Your task to perform on an android device: toggle sleep mode Image 0: 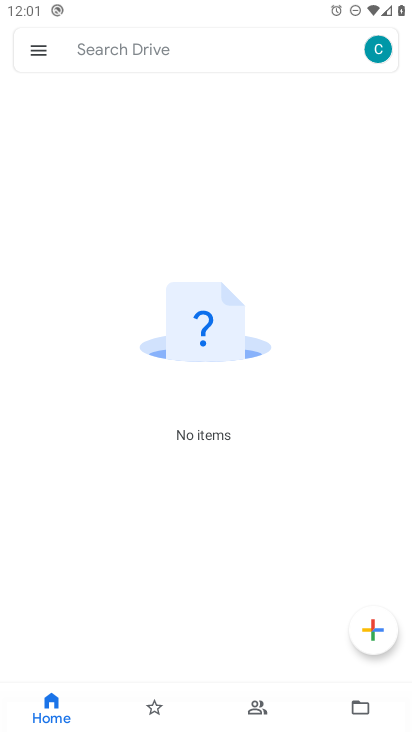
Step 0: press home button
Your task to perform on an android device: toggle sleep mode Image 1: 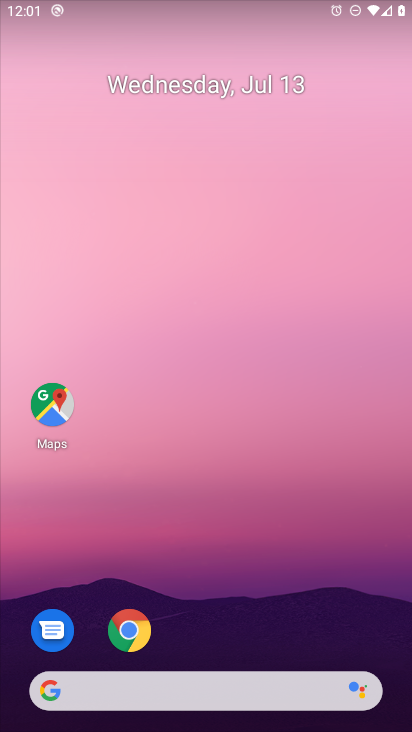
Step 1: drag from (279, 592) to (257, 46)
Your task to perform on an android device: toggle sleep mode Image 2: 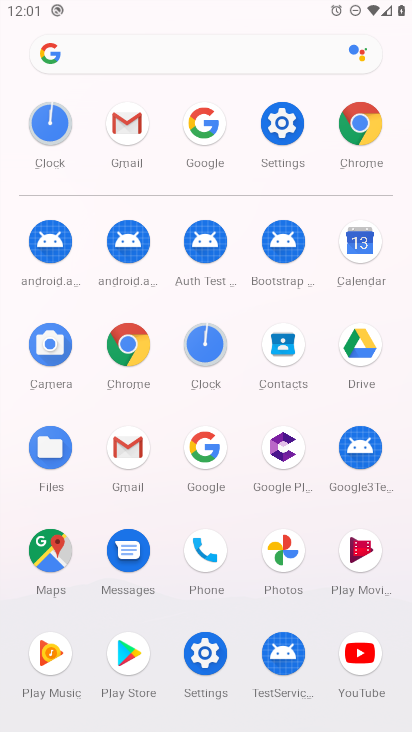
Step 2: click (278, 128)
Your task to perform on an android device: toggle sleep mode Image 3: 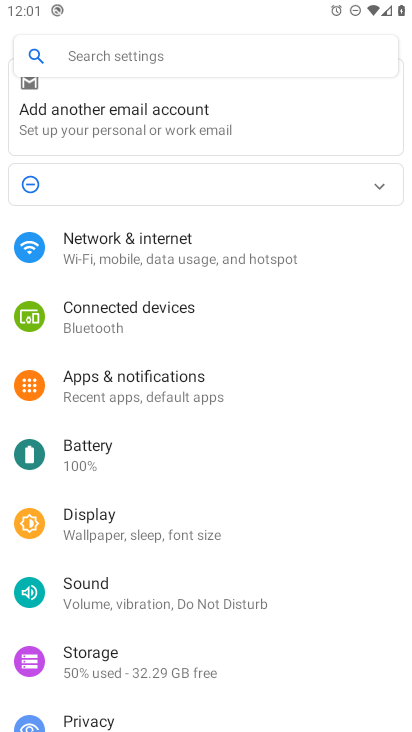
Step 3: click (119, 524)
Your task to perform on an android device: toggle sleep mode Image 4: 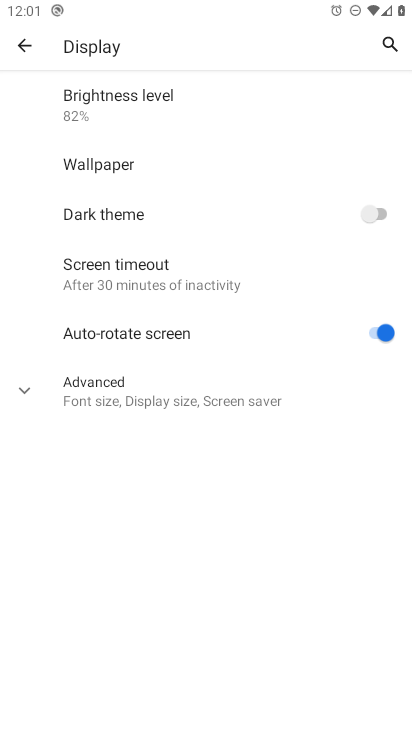
Step 4: click (47, 390)
Your task to perform on an android device: toggle sleep mode Image 5: 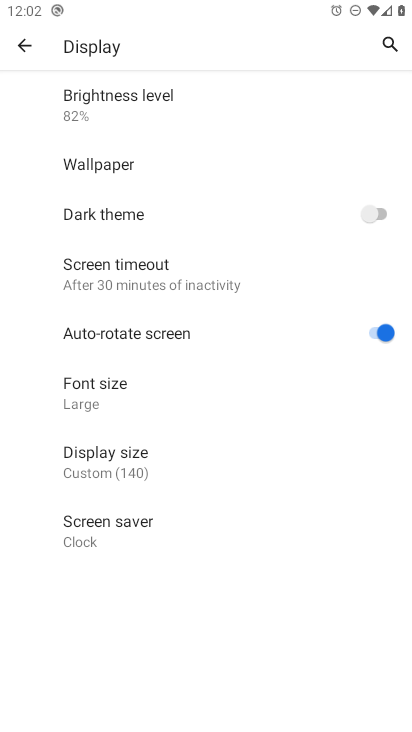
Step 5: task complete